Your task to perform on an android device: open app "TextNow: Call + Text Unlimited" (install if not already installed) Image 0: 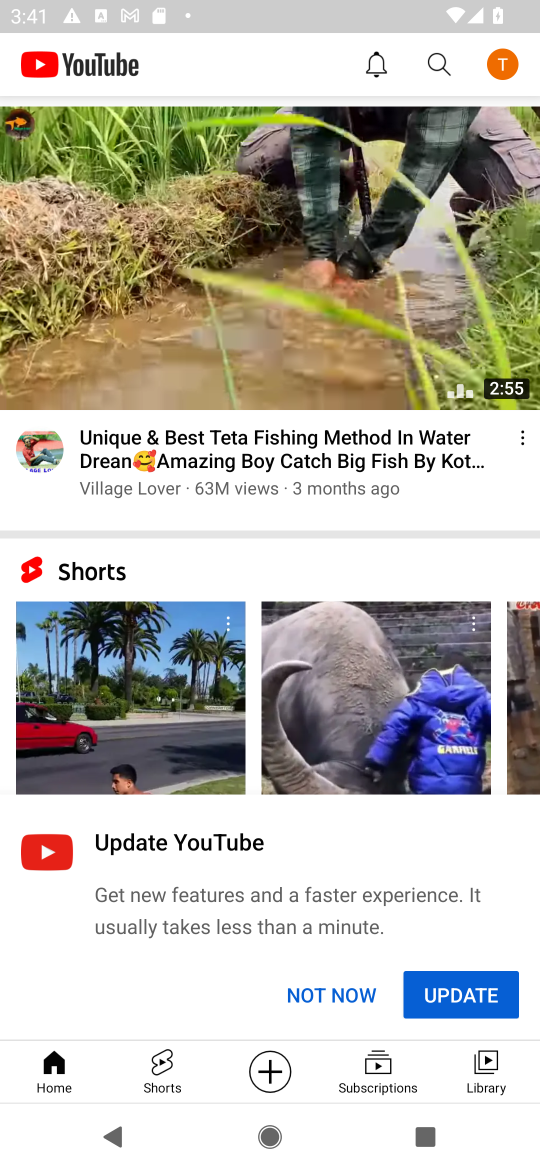
Step 0: press home button
Your task to perform on an android device: open app "TextNow: Call + Text Unlimited" (install if not already installed) Image 1: 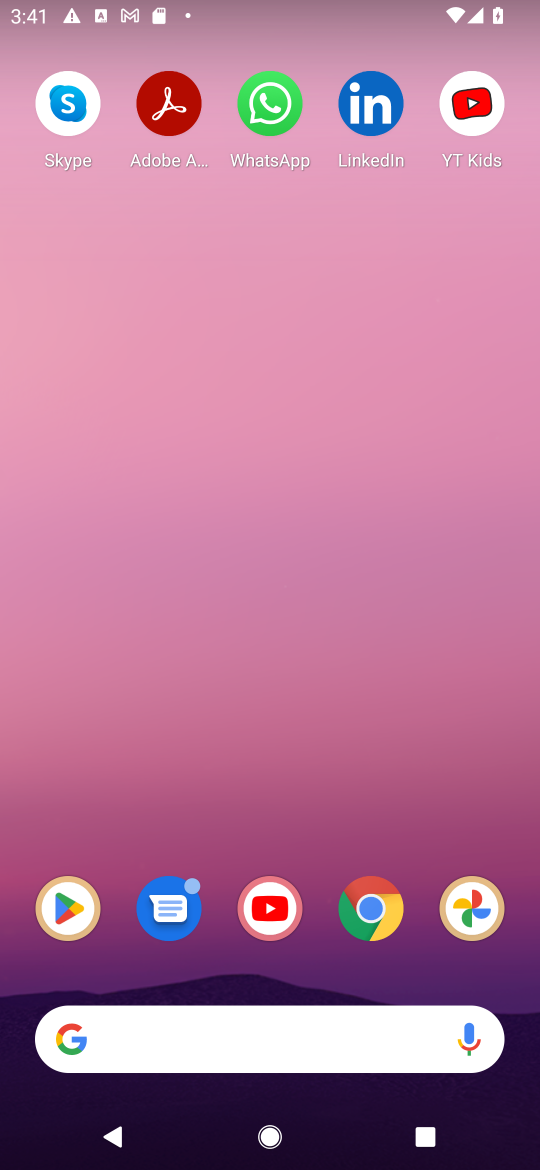
Step 1: click (61, 905)
Your task to perform on an android device: open app "TextNow: Call + Text Unlimited" (install if not already installed) Image 2: 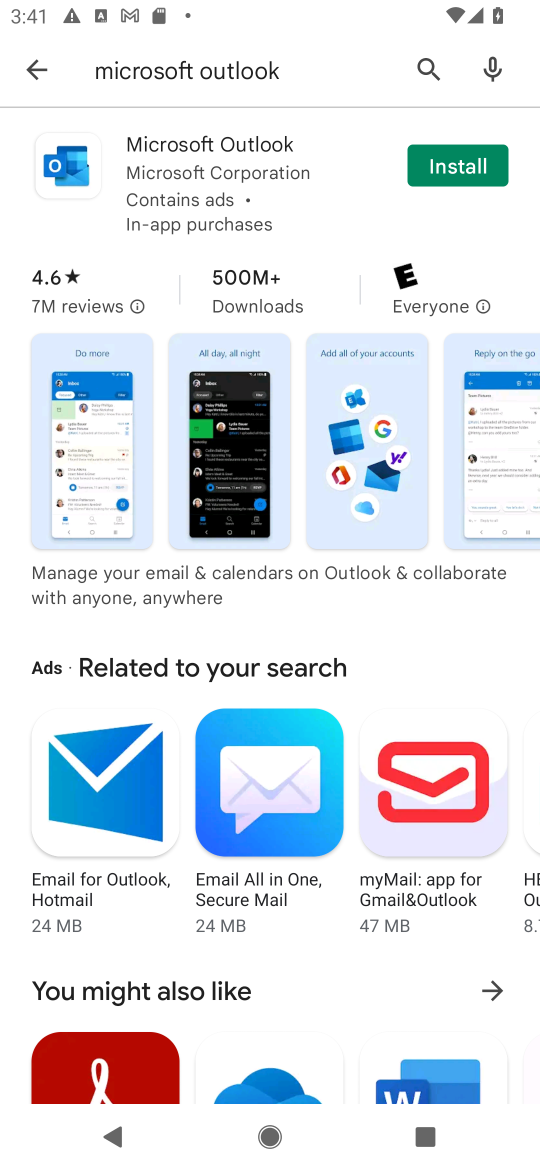
Step 2: click (438, 72)
Your task to perform on an android device: open app "TextNow: Call + Text Unlimited" (install if not already installed) Image 3: 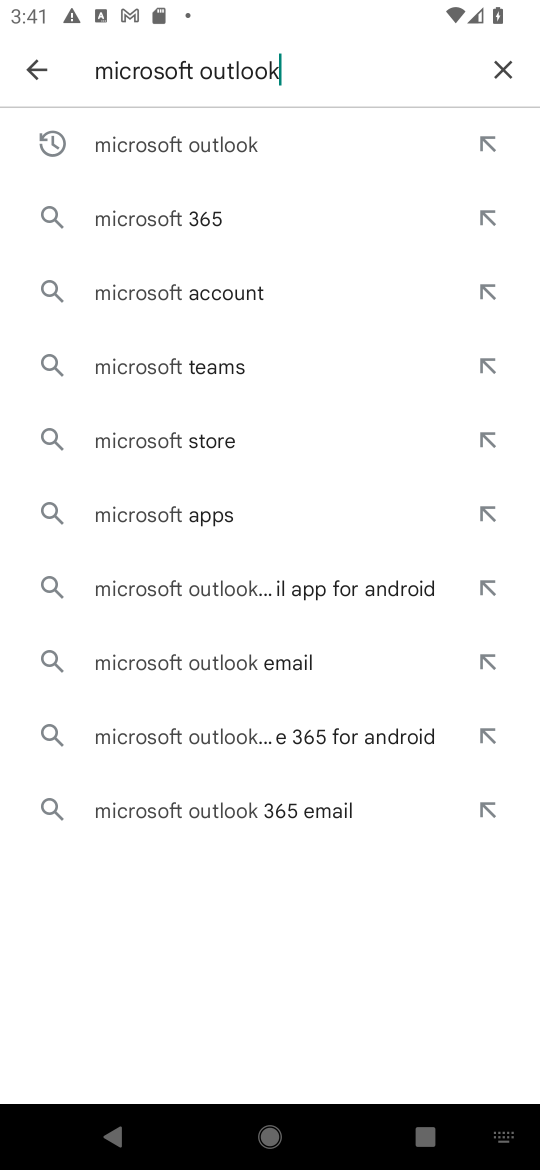
Step 3: click (501, 74)
Your task to perform on an android device: open app "TextNow: Call + Text Unlimited" (install if not already installed) Image 4: 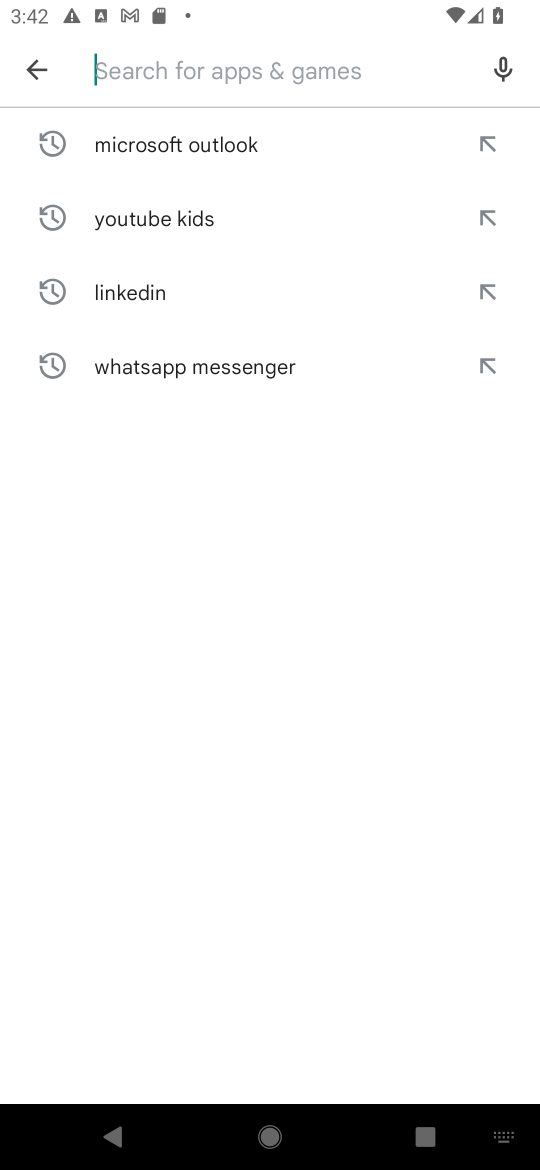
Step 4: type "TextNow"
Your task to perform on an android device: open app "TextNow: Call + Text Unlimited" (install if not already installed) Image 5: 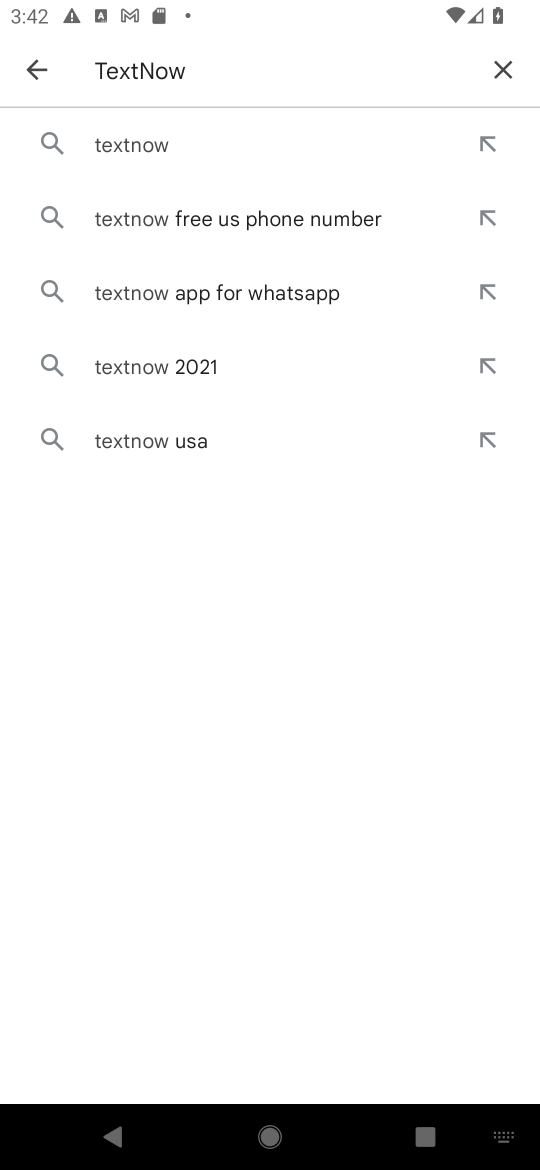
Step 5: click (181, 147)
Your task to perform on an android device: open app "TextNow: Call + Text Unlimited" (install if not already installed) Image 6: 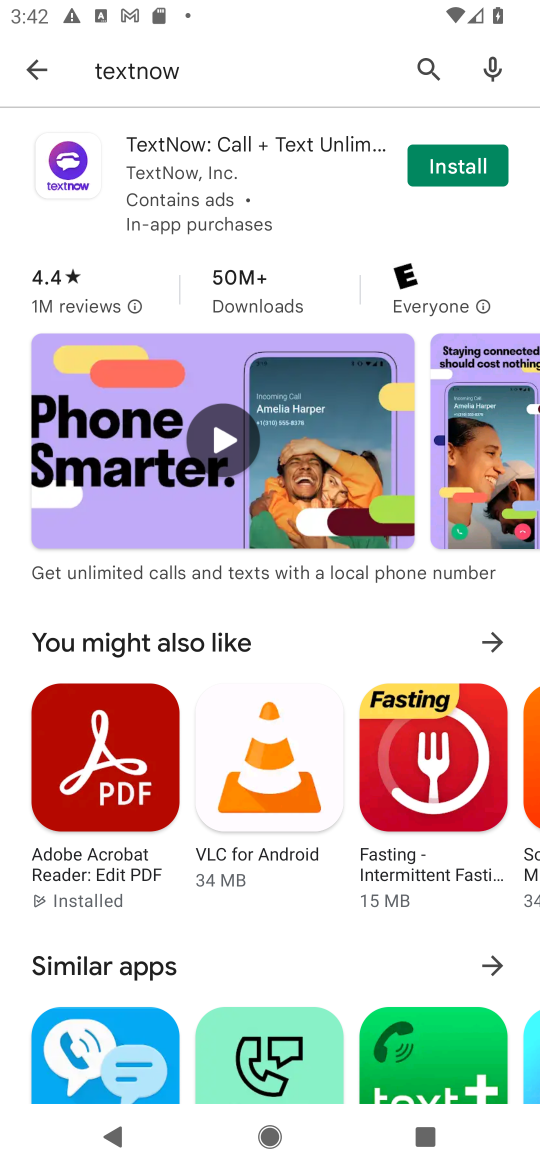
Step 6: click (477, 169)
Your task to perform on an android device: open app "TextNow: Call + Text Unlimited" (install if not already installed) Image 7: 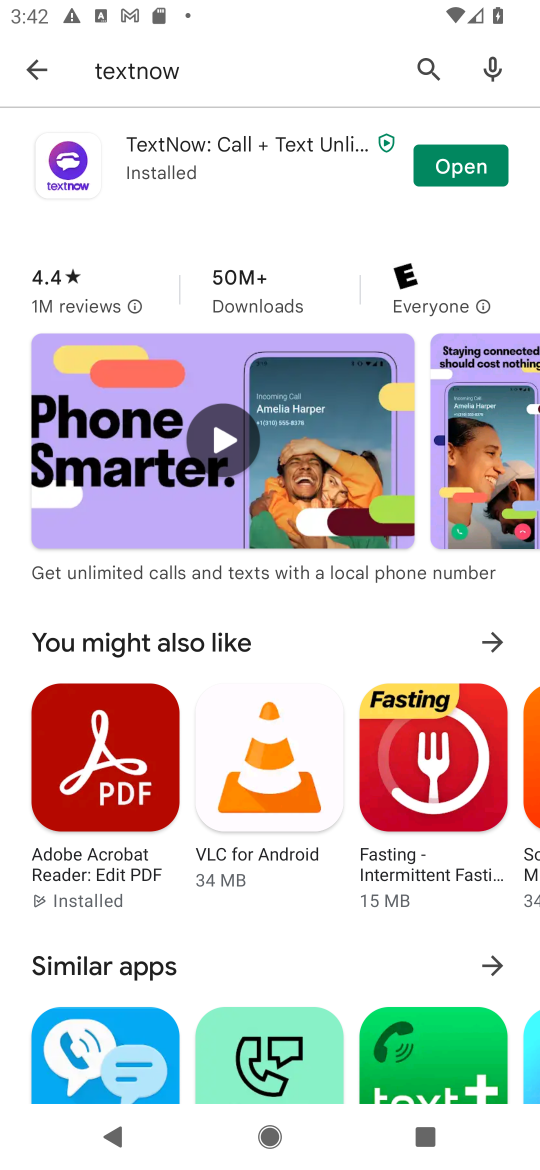
Step 7: click (467, 153)
Your task to perform on an android device: open app "TextNow: Call + Text Unlimited" (install if not already installed) Image 8: 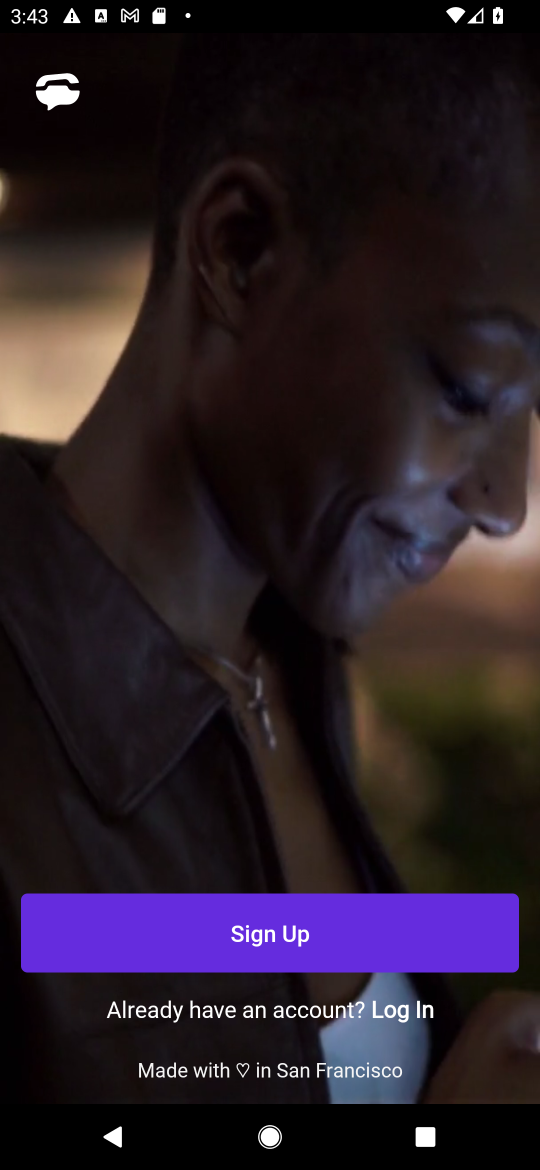
Step 8: task complete